Your task to perform on an android device: turn off improve location accuracy Image 0: 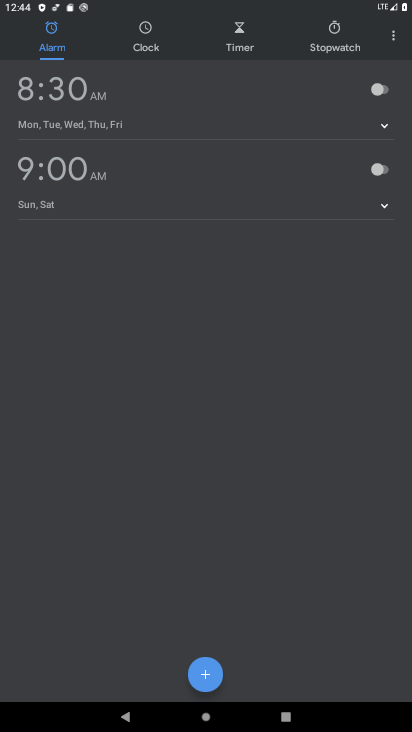
Step 0: press home button
Your task to perform on an android device: turn off improve location accuracy Image 1: 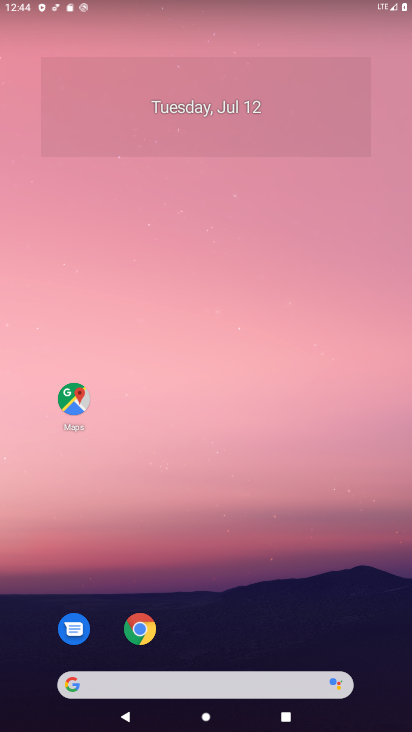
Step 1: drag from (29, 659) to (150, 59)
Your task to perform on an android device: turn off improve location accuracy Image 2: 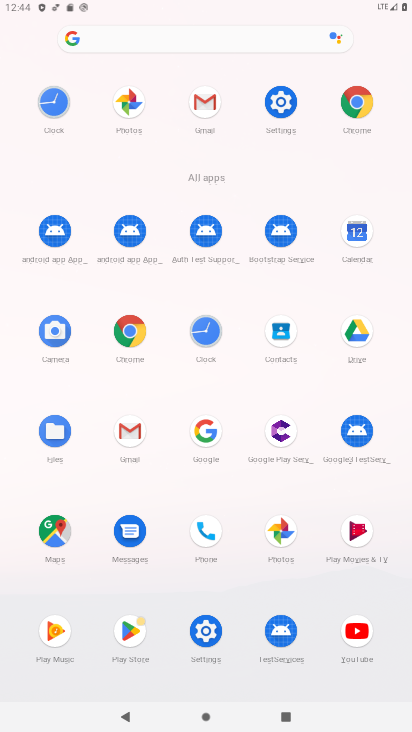
Step 2: click (213, 632)
Your task to perform on an android device: turn off improve location accuracy Image 3: 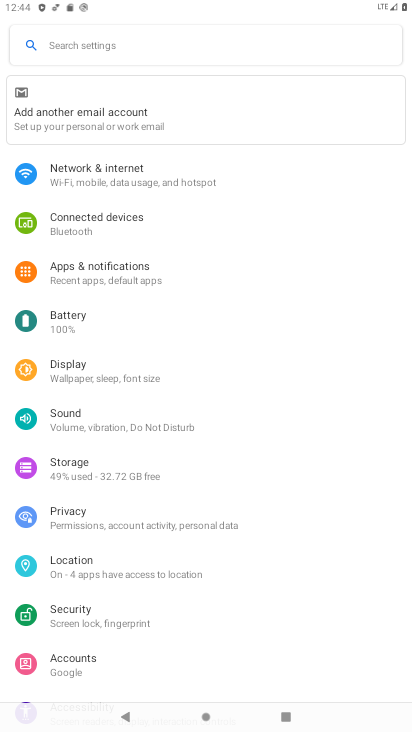
Step 3: click (58, 561)
Your task to perform on an android device: turn off improve location accuracy Image 4: 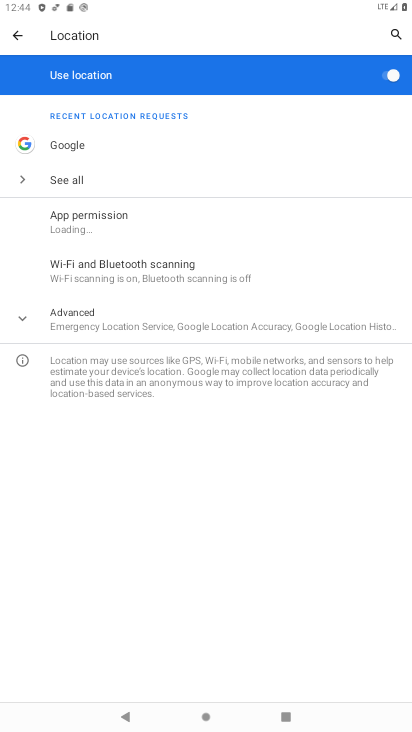
Step 4: click (145, 321)
Your task to perform on an android device: turn off improve location accuracy Image 5: 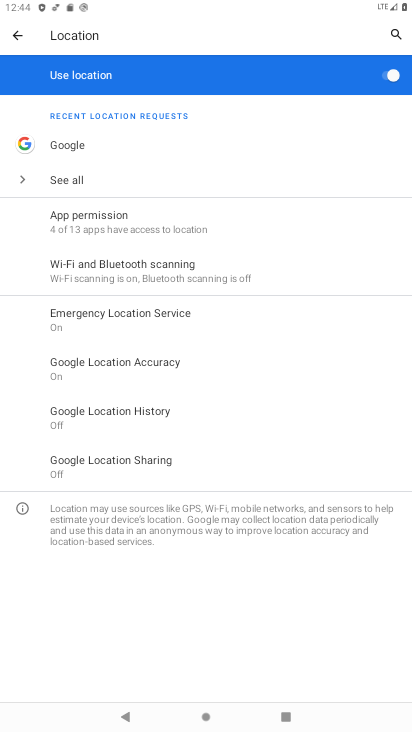
Step 5: click (144, 366)
Your task to perform on an android device: turn off improve location accuracy Image 6: 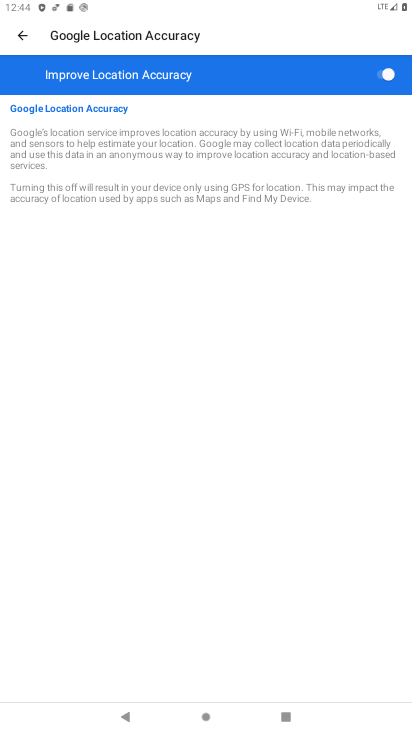
Step 6: click (379, 68)
Your task to perform on an android device: turn off improve location accuracy Image 7: 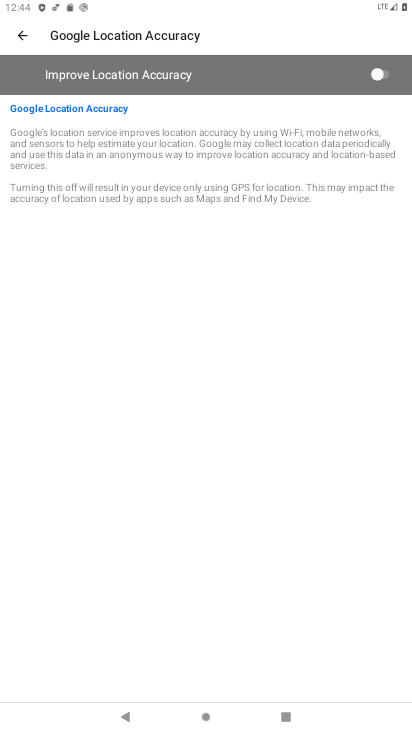
Step 7: task complete